Your task to perform on an android device: Open the stopwatch Image 0: 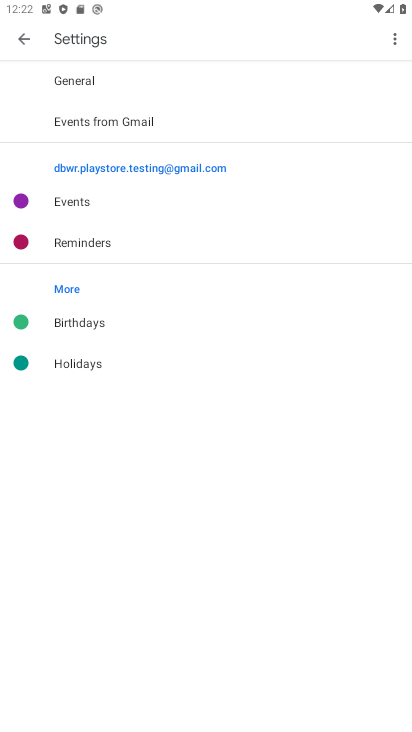
Step 0: press back button
Your task to perform on an android device: Open the stopwatch Image 1: 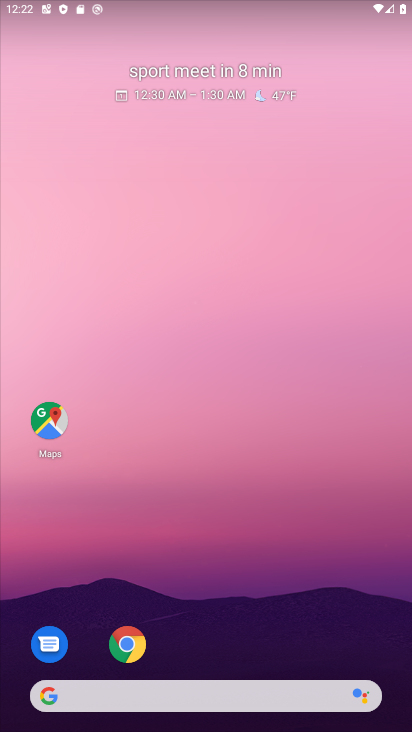
Step 1: drag from (177, 587) to (306, 141)
Your task to perform on an android device: Open the stopwatch Image 2: 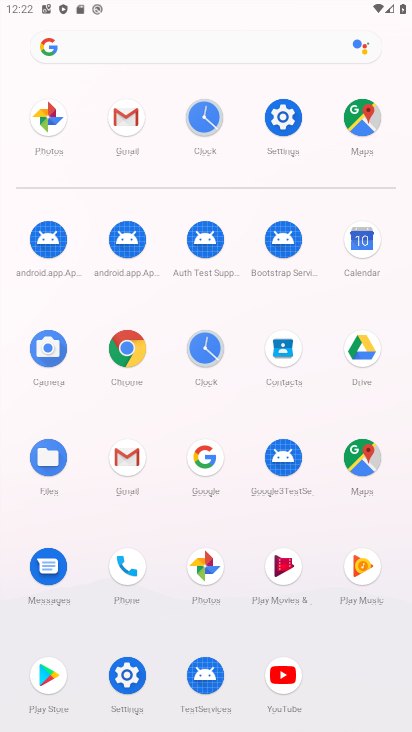
Step 2: click (213, 345)
Your task to perform on an android device: Open the stopwatch Image 3: 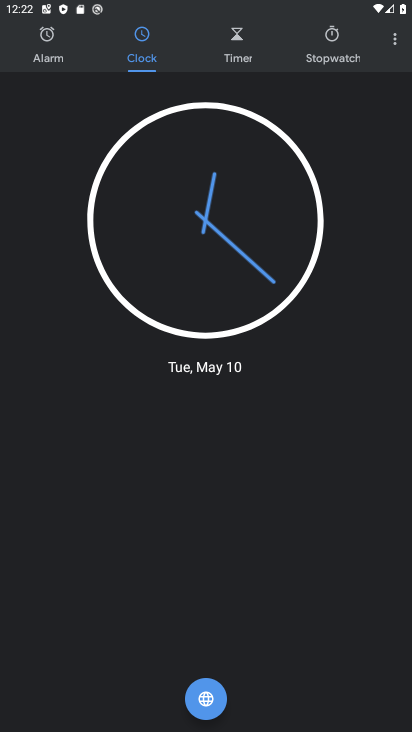
Step 3: click (333, 46)
Your task to perform on an android device: Open the stopwatch Image 4: 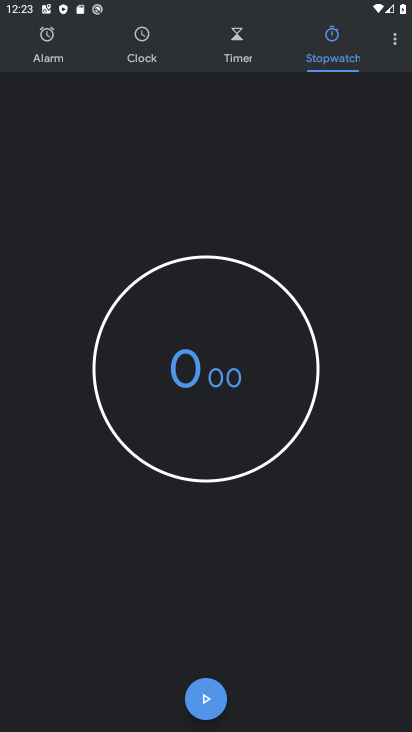
Step 4: task complete